Your task to perform on an android device: turn on notifications settings in the gmail app Image 0: 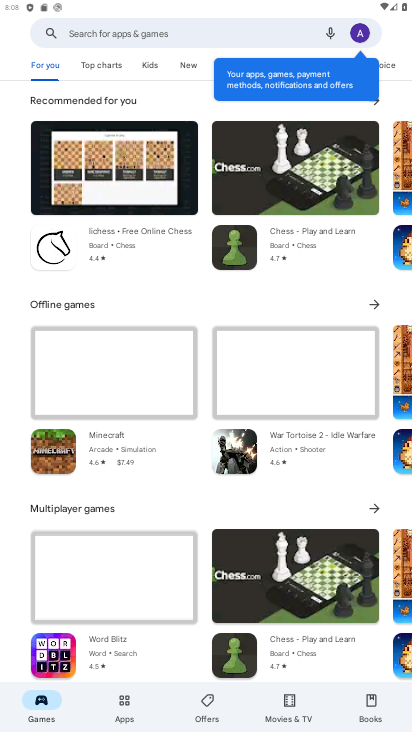
Step 0: press home button
Your task to perform on an android device: turn on notifications settings in the gmail app Image 1: 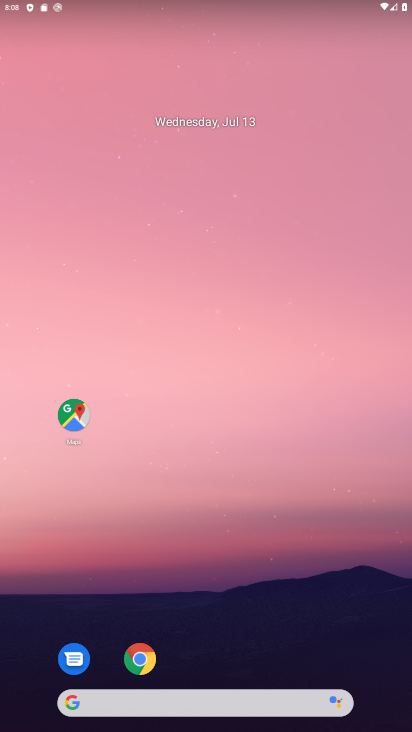
Step 1: drag from (234, 532) to (155, 41)
Your task to perform on an android device: turn on notifications settings in the gmail app Image 2: 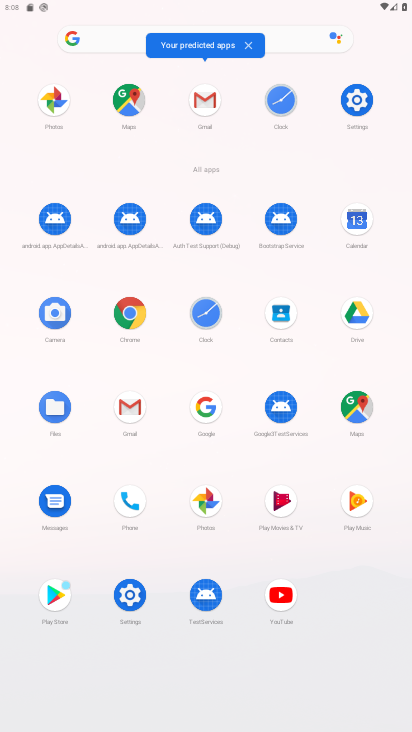
Step 2: click (209, 103)
Your task to perform on an android device: turn on notifications settings in the gmail app Image 3: 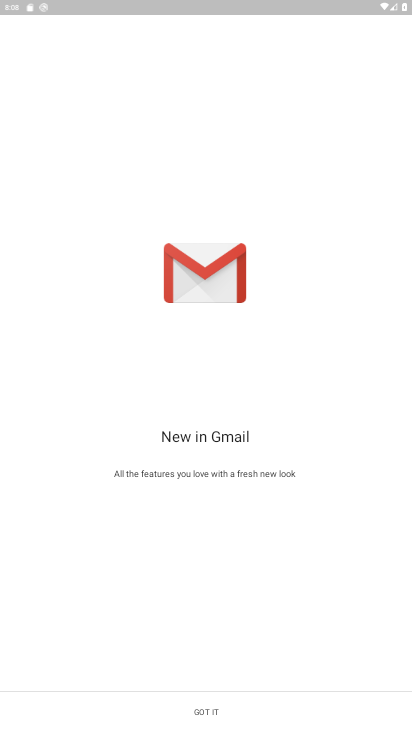
Step 3: click (207, 705)
Your task to perform on an android device: turn on notifications settings in the gmail app Image 4: 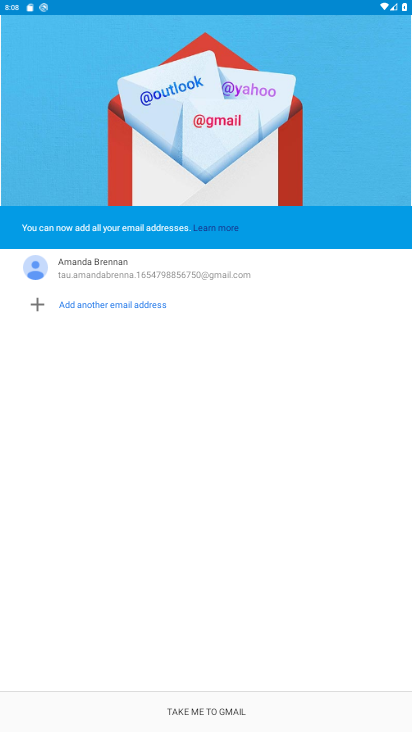
Step 4: click (207, 715)
Your task to perform on an android device: turn on notifications settings in the gmail app Image 5: 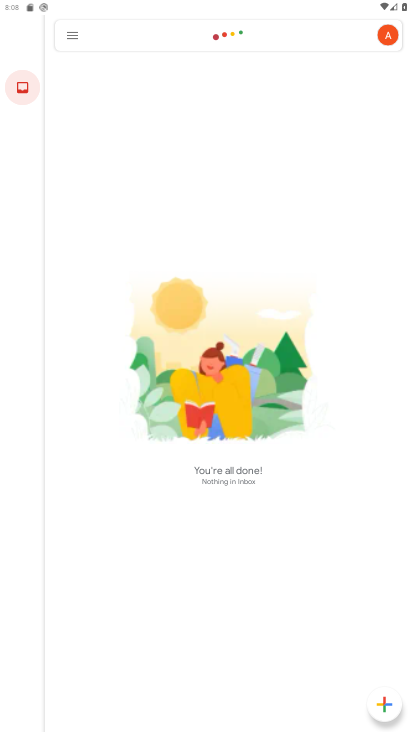
Step 5: click (69, 28)
Your task to perform on an android device: turn on notifications settings in the gmail app Image 6: 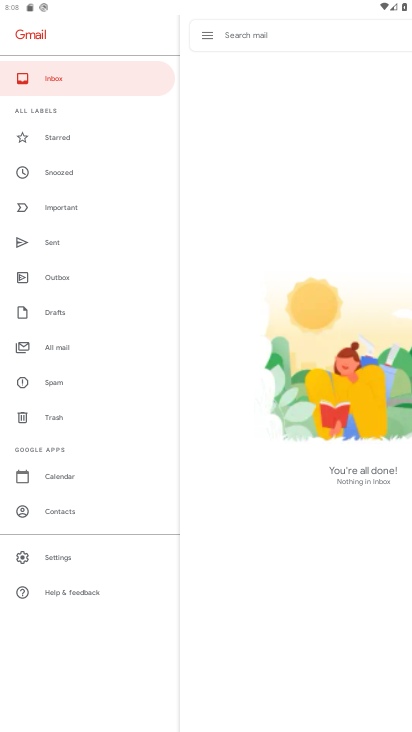
Step 6: click (64, 557)
Your task to perform on an android device: turn on notifications settings in the gmail app Image 7: 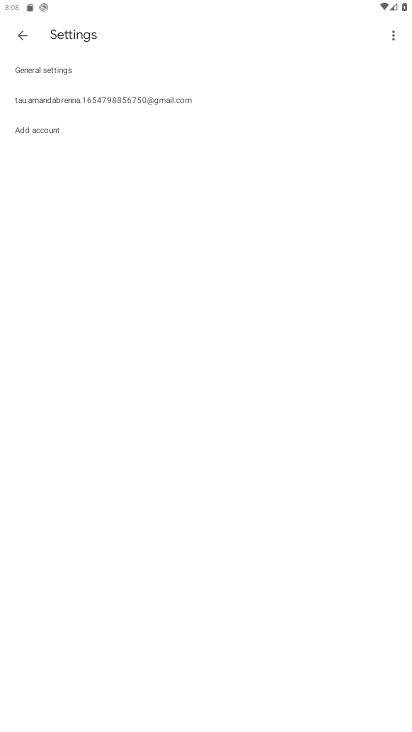
Step 7: click (46, 69)
Your task to perform on an android device: turn on notifications settings in the gmail app Image 8: 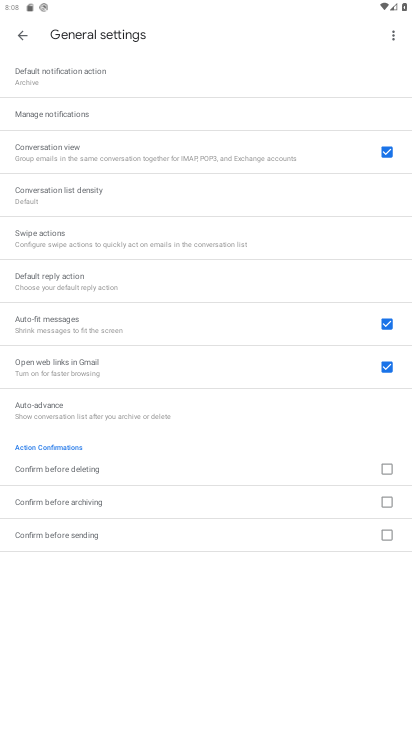
Step 8: click (48, 111)
Your task to perform on an android device: turn on notifications settings in the gmail app Image 9: 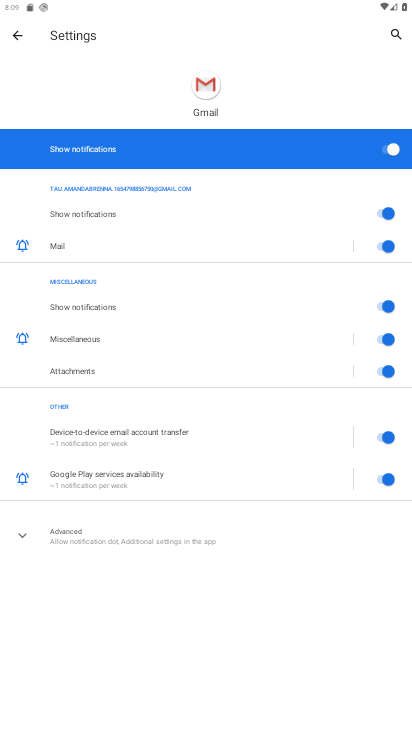
Step 9: task complete